Your task to perform on an android device: Search for sushi restaurants on Maps Image 0: 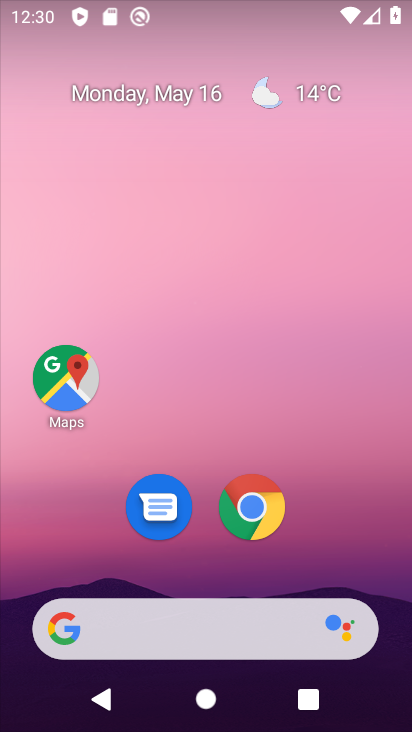
Step 0: click (76, 359)
Your task to perform on an android device: Search for sushi restaurants on Maps Image 1: 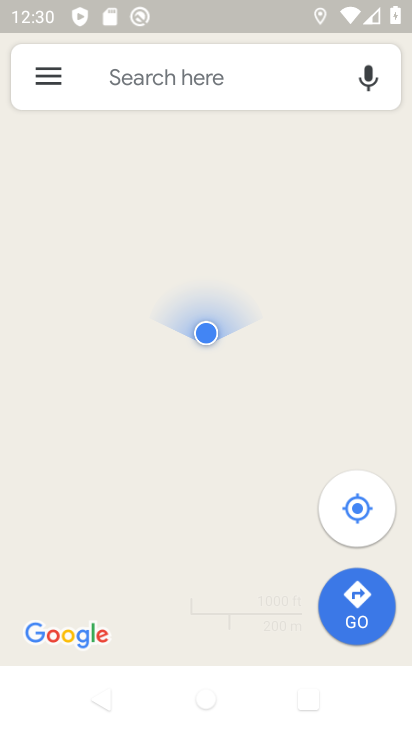
Step 1: click (144, 91)
Your task to perform on an android device: Search for sushi restaurants on Maps Image 2: 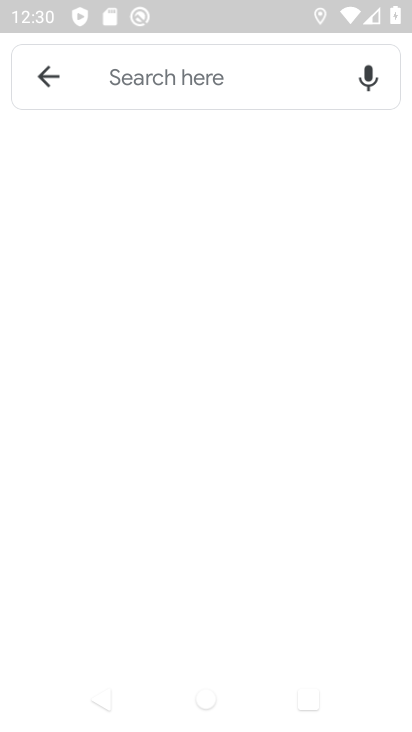
Step 2: click (181, 79)
Your task to perform on an android device: Search for sushi restaurants on Maps Image 3: 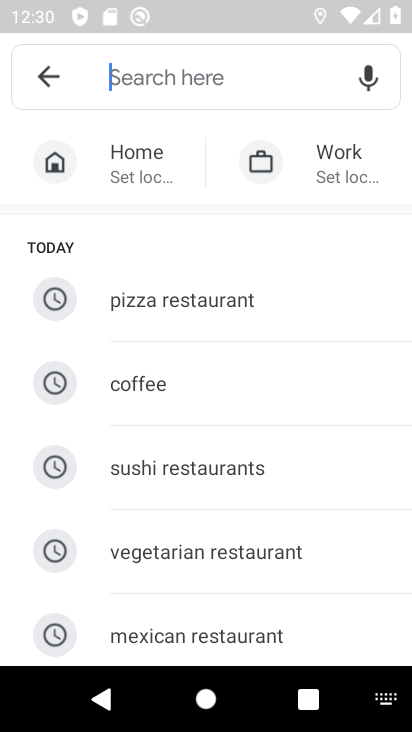
Step 3: click (239, 469)
Your task to perform on an android device: Search for sushi restaurants on Maps Image 4: 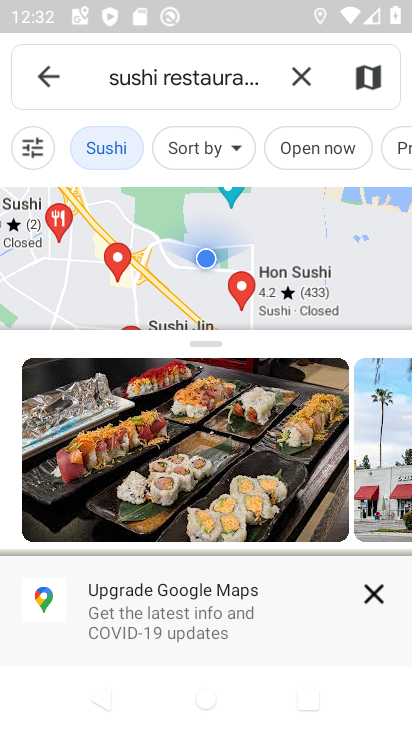
Step 4: task complete